Your task to perform on an android device: Open display settings Image 0: 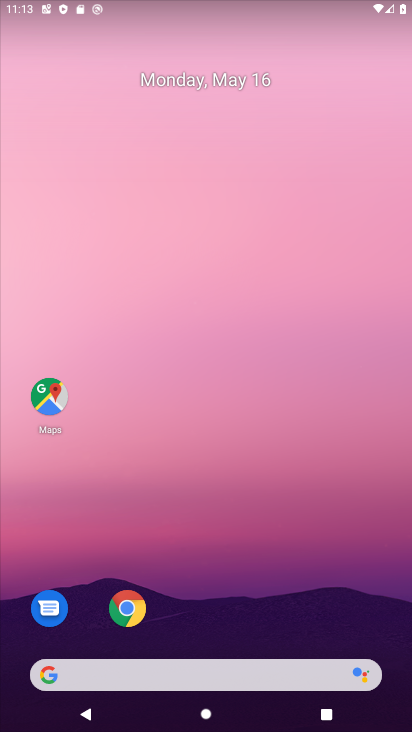
Step 0: drag from (188, 675) to (253, 144)
Your task to perform on an android device: Open display settings Image 1: 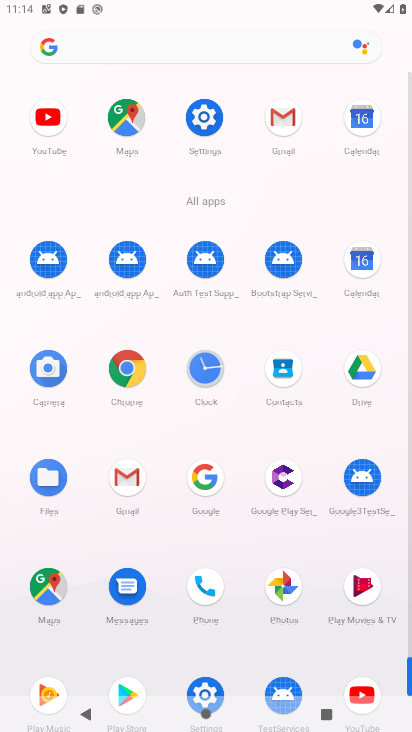
Step 1: click (206, 123)
Your task to perform on an android device: Open display settings Image 2: 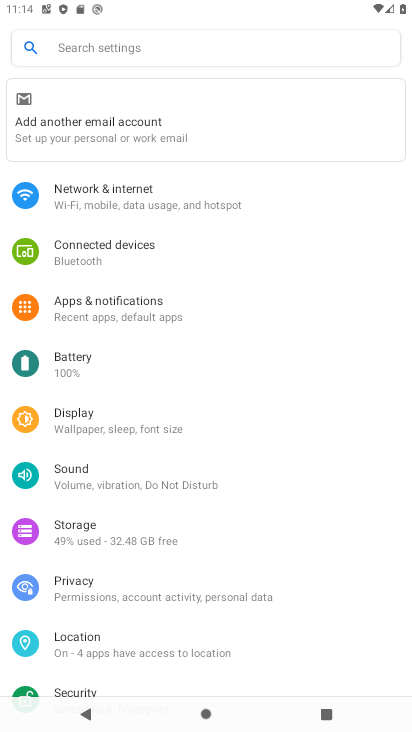
Step 2: click (114, 422)
Your task to perform on an android device: Open display settings Image 3: 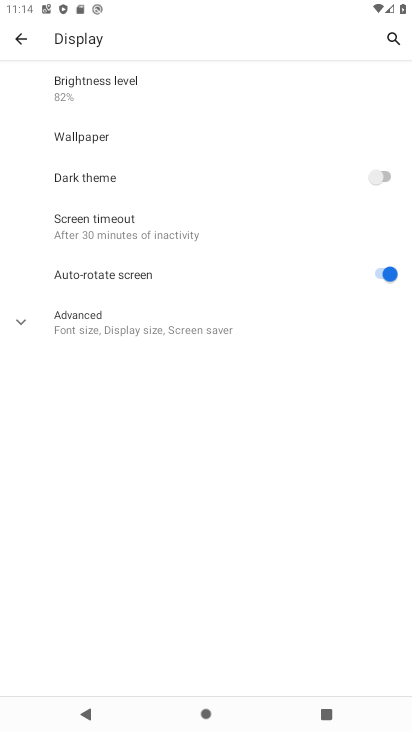
Step 3: task complete